Your task to perform on an android device: open a new tab in the chrome app Image 0: 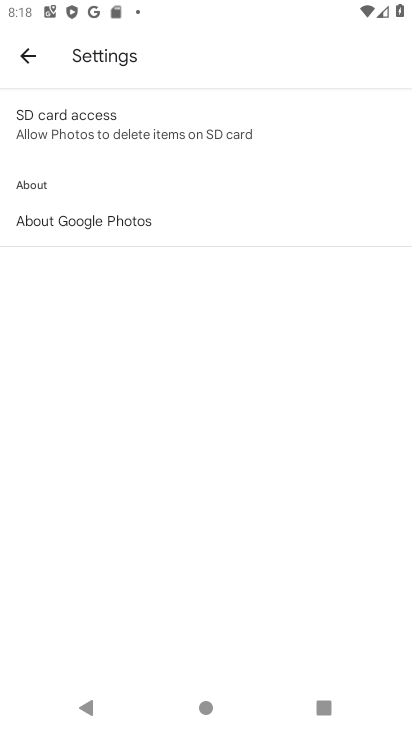
Step 0: press home button
Your task to perform on an android device: open a new tab in the chrome app Image 1: 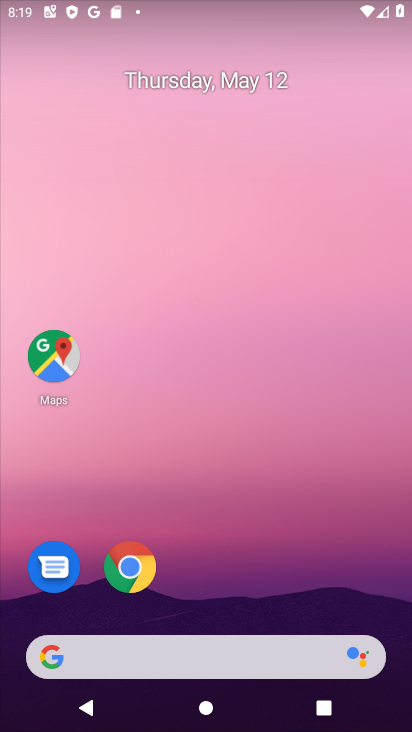
Step 1: click (131, 576)
Your task to perform on an android device: open a new tab in the chrome app Image 2: 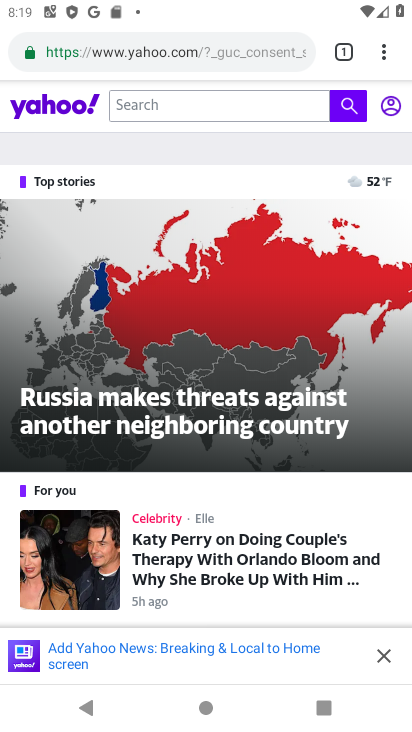
Step 2: drag from (296, 39) to (258, 267)
Your task to perform on an android device: open a new tab in the chrome app Image 3: 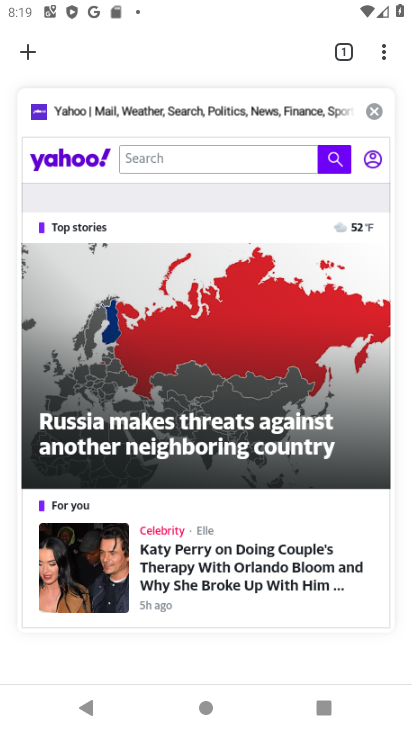
Step 3: click (27, 57)
Your task to perform on an android device: open a new tab in the chrome app Image 4: 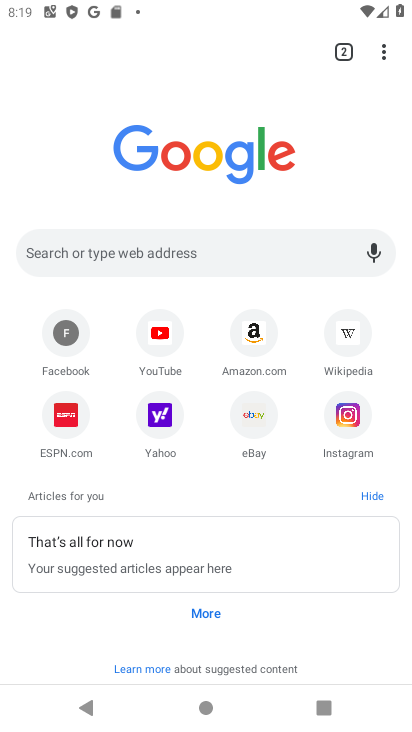
Step 4: task complete